Your task to perform on an android device: add a contact Image 0: 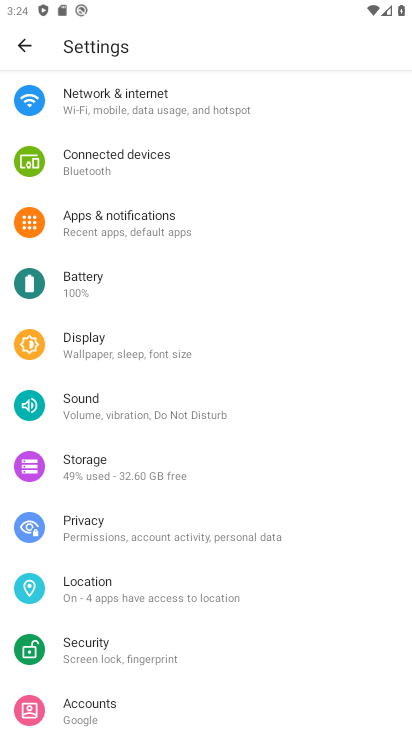
Step 0: press home button
Your task to perform on an android device: add a contact Image 1: 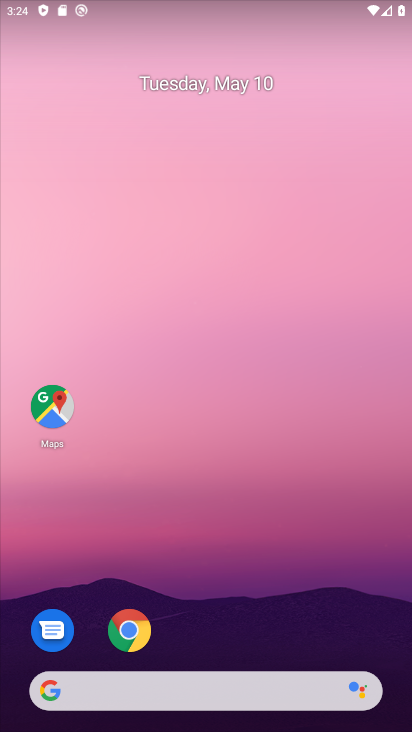
Step 1: drag from (254, 629) to (218, 104)
Your task to perform on an android device: add a contact Image 2: 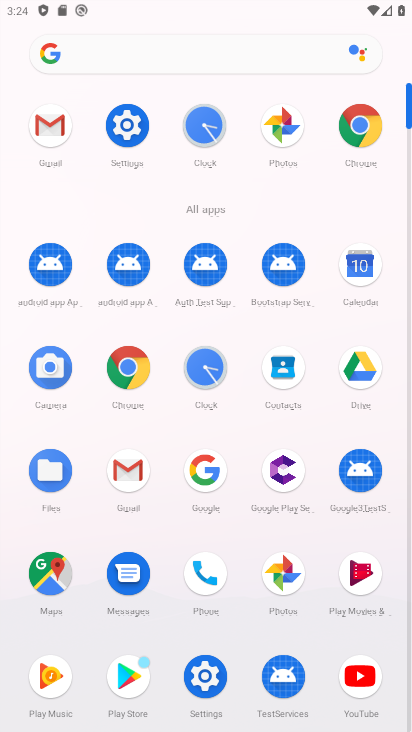
Step 2: click (191, 574)
Your task to perform on an android device: add a contact Image 3: 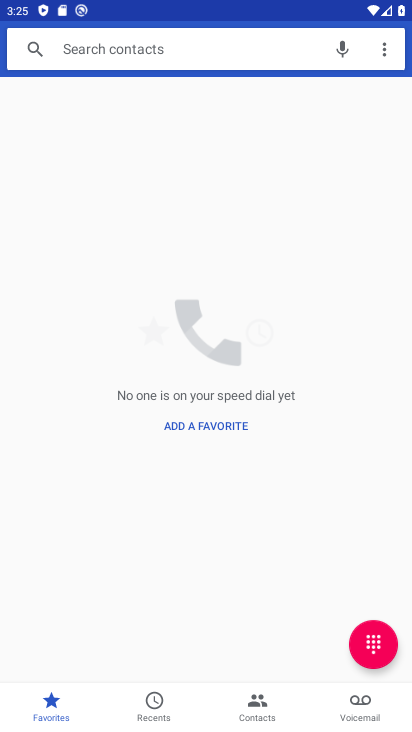
Step 3: click (268, 709)
Your task to perform on an android device: add a contact Image 4: 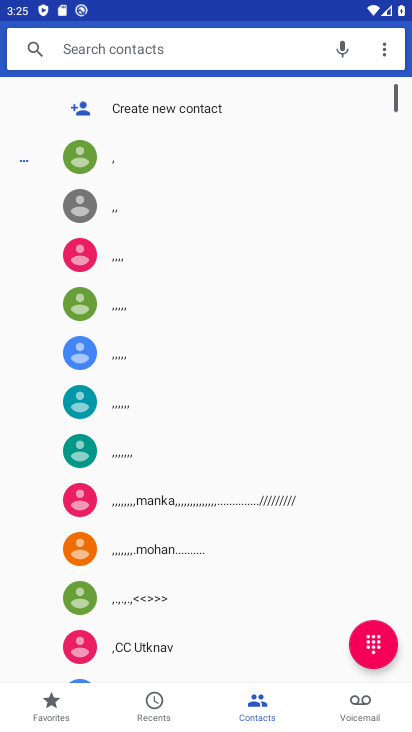
Step 4: click (162, 107)
Your task to perform on an android device: add a contact Image 5: 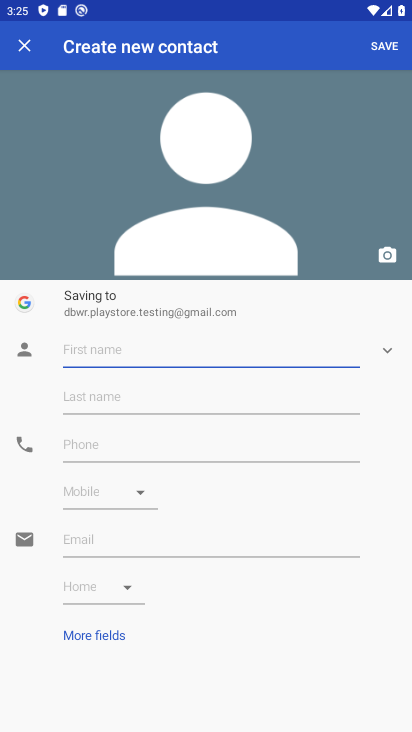
Step 5: type ",,,,,,,,,,,,"
Your task to perform on an android device: add a contact Image 6: 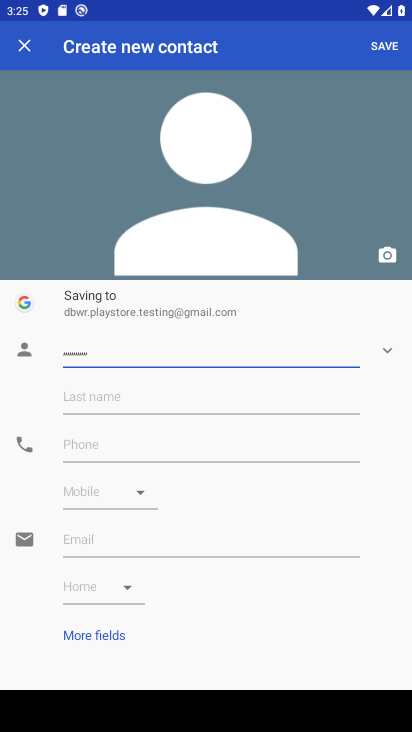
Step 6: click (161, 389)
Your task to perform on an android device: add a contact Image 7: 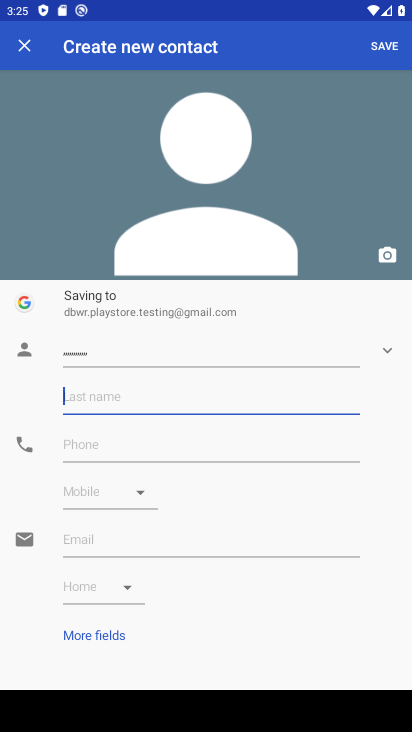
Step 7: click (107, 461)
Your task to perform on an android device: add a contact Image 8: 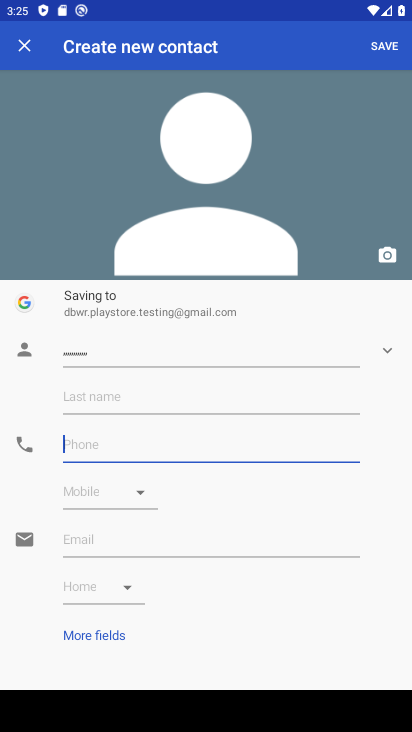
Step 8: type "098767890"
Your task to perform on an android device: add a contact Image 9: 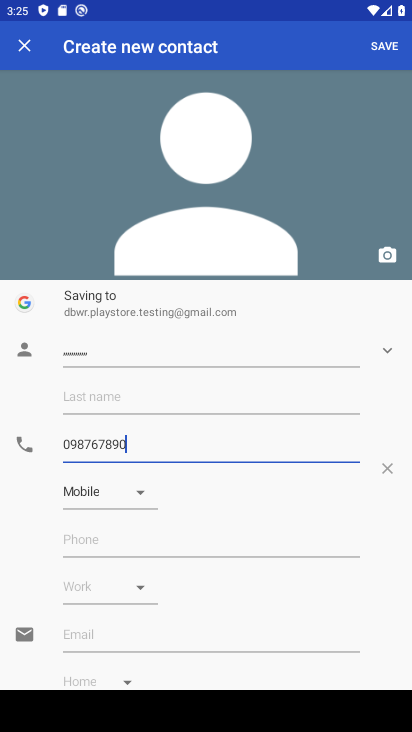
Step 9: click (395, 43)
Your task to perform on an android device: add a contact Image 10: 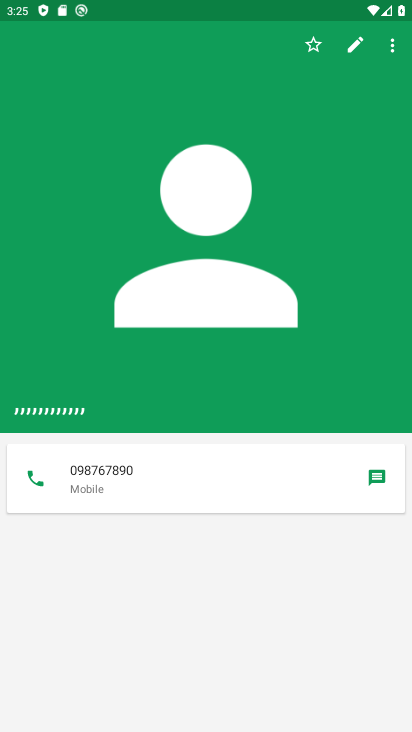
Step 10: task complete